Your task to perform on an android device: Toggle the flashlight Image 0: 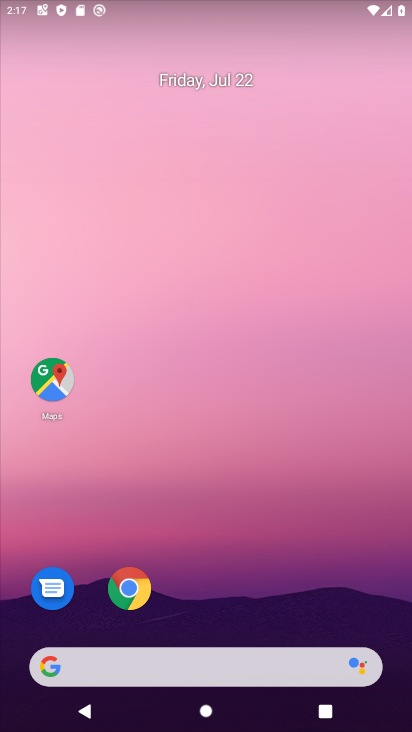
Step 0: press home button
Your task to perform on an android device: Toggle the flashlight Image 1: 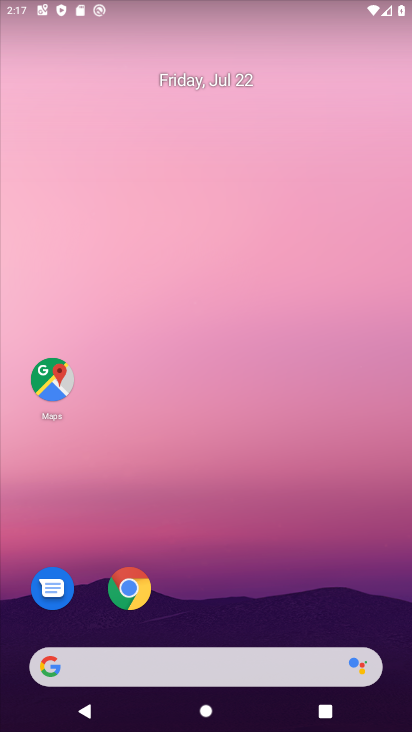
Step 1: drag from (232, 631) to (305, 0)
Your task to perform on an android device: Toggle the flashlight Image 2: 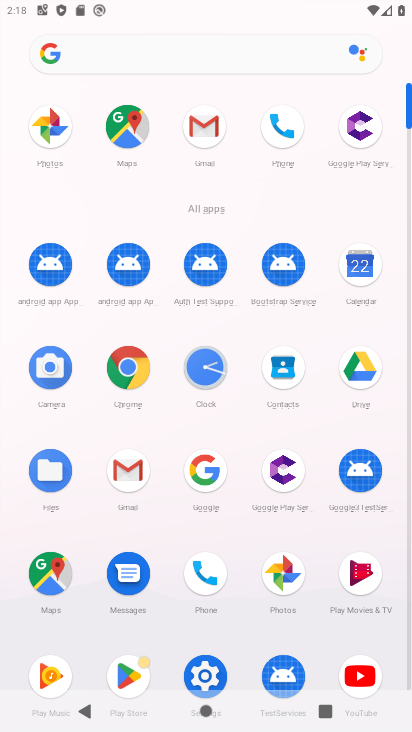
Step 2: click (203, 662)
Your task to perform on an android device: Toggle the flashlight Image 3: 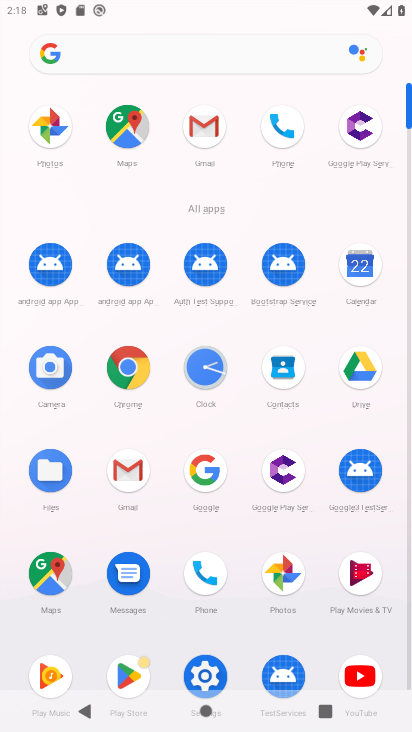
Step 3: click (204, 665)
Your task to perform on an android device: Toggle the flashlight Image 4: 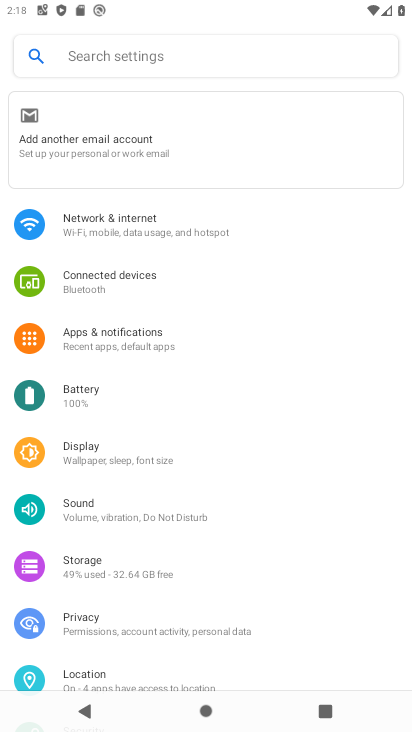
Step 4: click (116, 53)
Your task to perform on an android device: Toggle the flashlight Image 5: 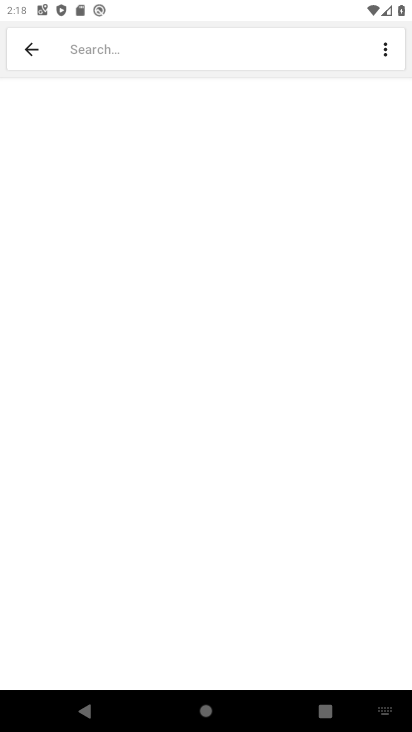
Step 5: type "flashlight"
Your task to perform on an android device: Toggle the flashlight Image 6: 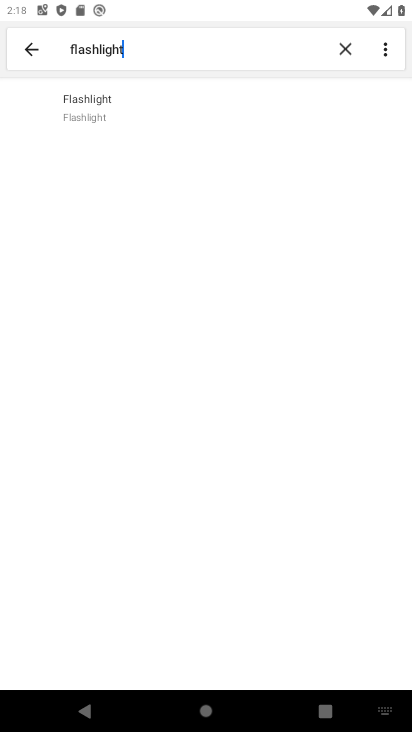
Step 6: click (118, 108)
Your task to perform on an android device: Toggle the flashlight Image 7: 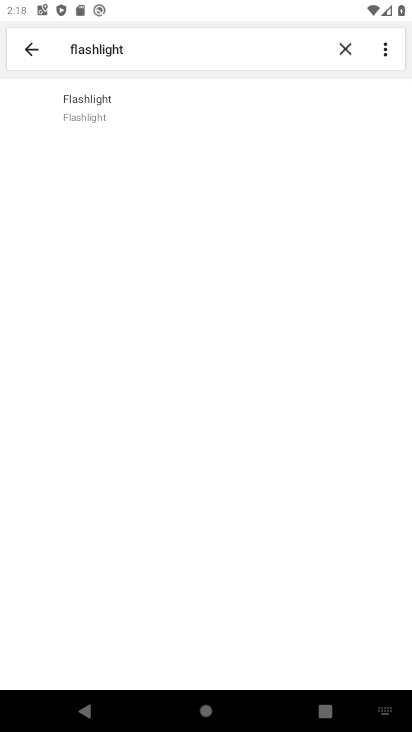
Step 7: task complete